Your task to perform on an android device: turn off notifications settings in the gmail app Image 0: 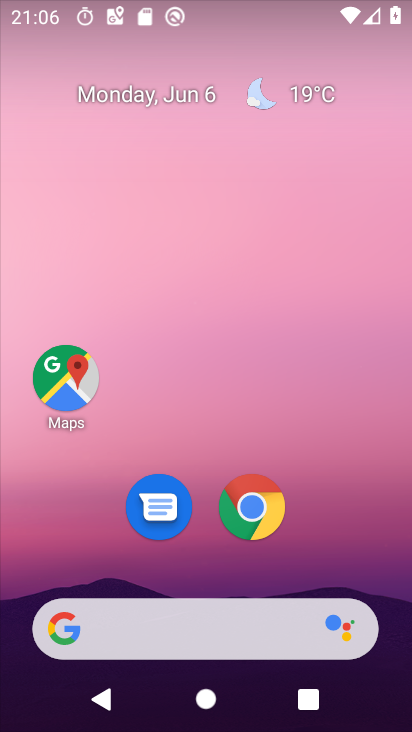
Step 0: press home button
Your task to perform on an android device: turn off notifications settings in the gmail app Image 1: 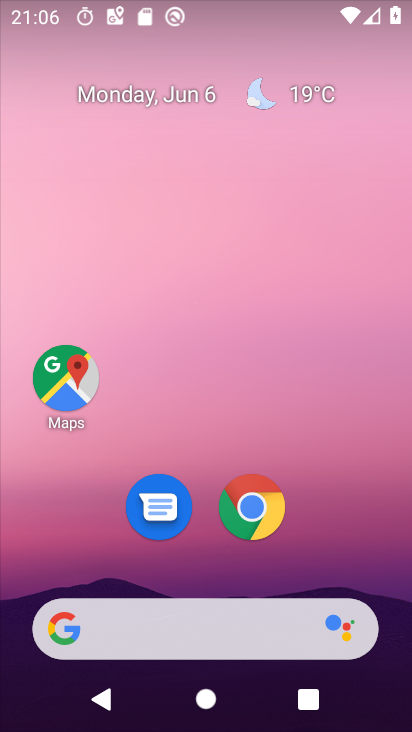
Step 1: drag from (344, 567) to (403, 106)
Your task to perform on an android device: turn off notifications settings in the gmail app Image 2: 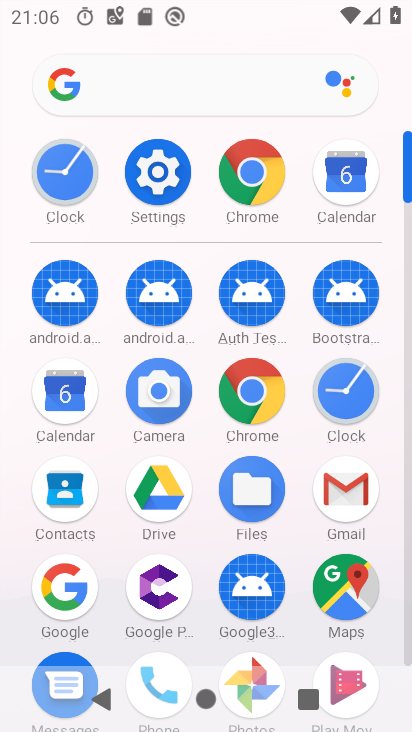
Step 2: drag from (210, 592) to (259, 272)
Your task to perform on an android device: turn off notifications settings in the gmail app Image 3: 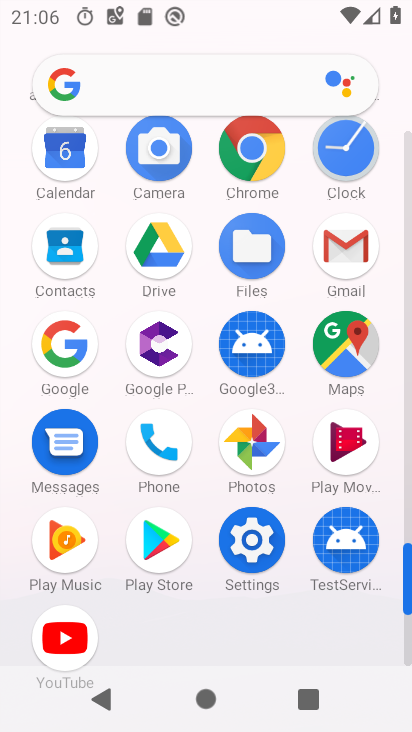
Step 3: click (372, 272)
Your task to perform on an android device: turn off notifications settings in the gmail app Image 4: 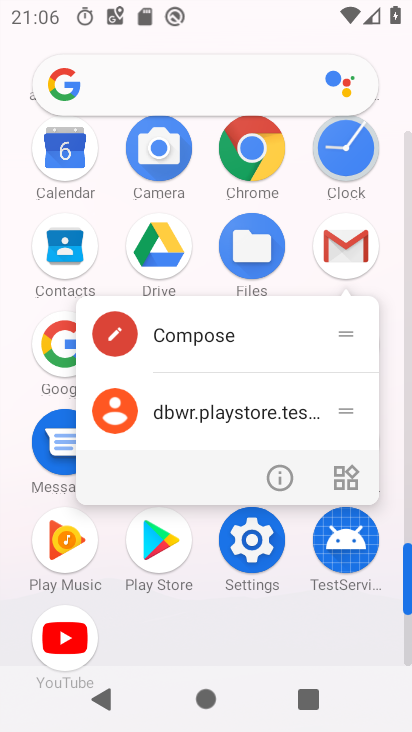
Step 4: click (267, 479)
Your task to perform on an android device: turn off notifications settings in the gmail app Image 5: 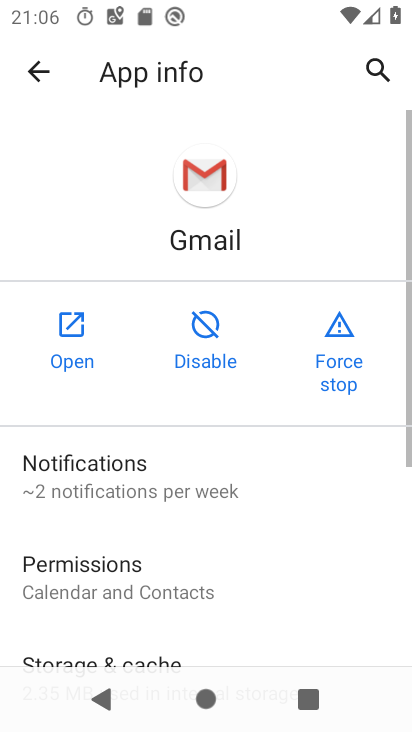
Step 5: click (267, 479)
Your task to perform on an android device: turn off notifications settings in the gmail app Image 6: 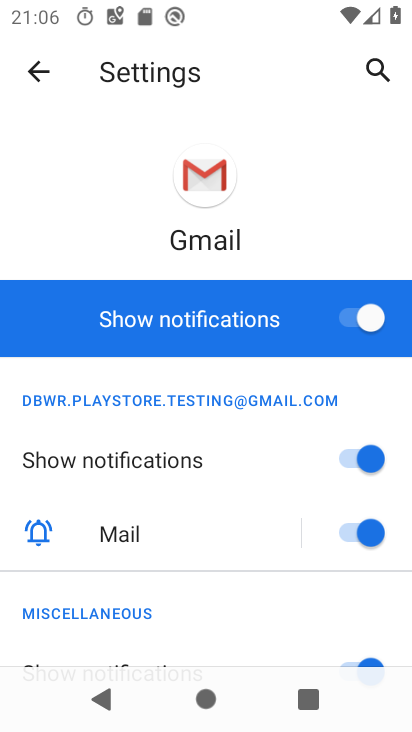
Step 6: click (163, 318)
Your task to perform on an android device: turn off notifications settings in the gmail app Image 7: 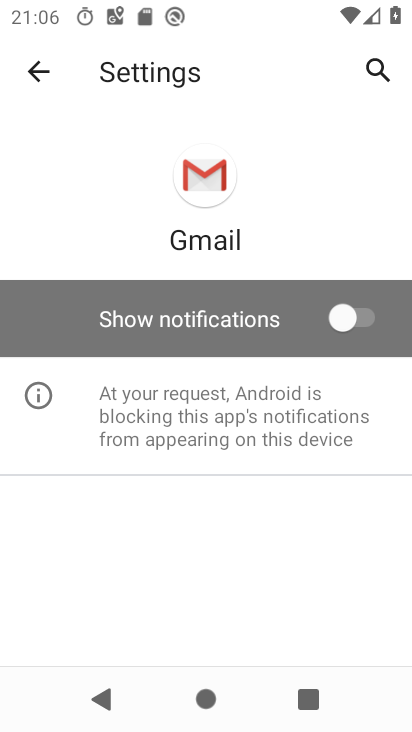
Step 7: task complete